Your task to perform on an android device: Show me recent news Image 0: 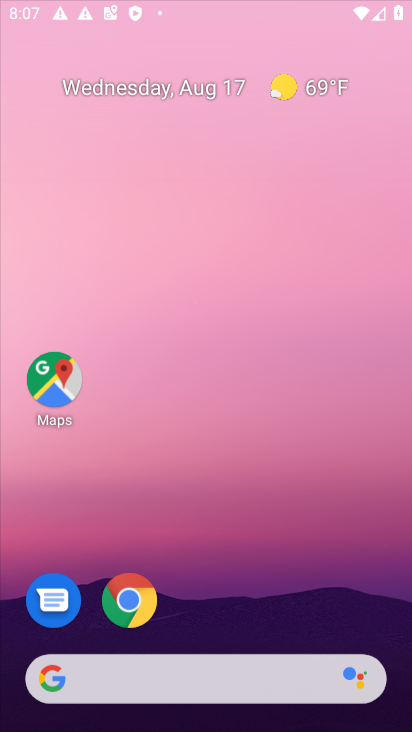
Step 0: press home button
Your task to perform on an android device: Show me recent news Image 1: 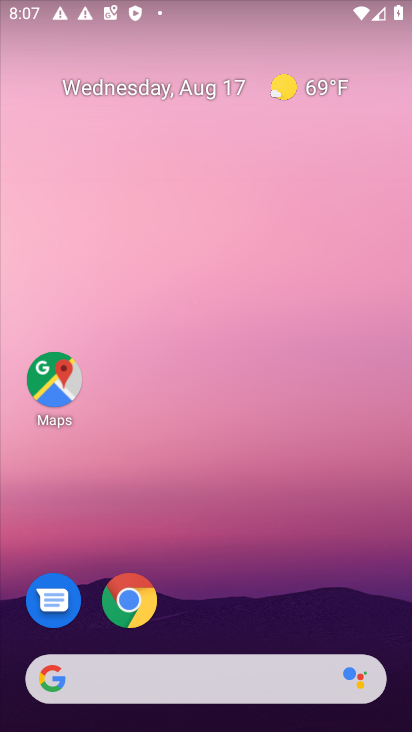
Step 1: click (42, 681)
Your task to perform on an android device: Show me recent news Image 2: 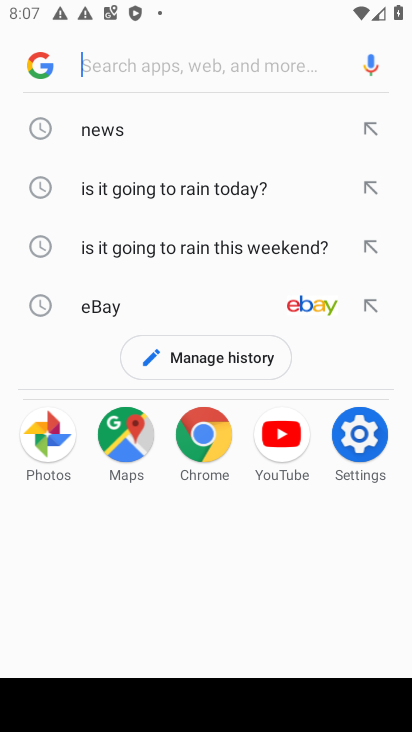
Step 2: type "recent news"
Your task to perform on an android device: Show me recent news Image 3: 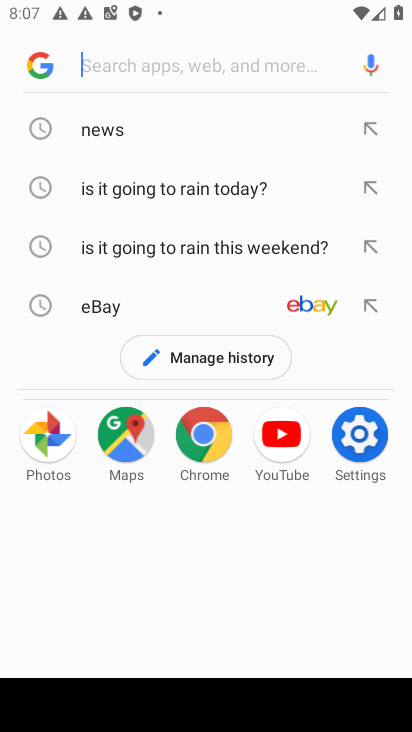
Step 3: click (129, 61)
Your task to perform on an android device: Show me recent news Image 4: 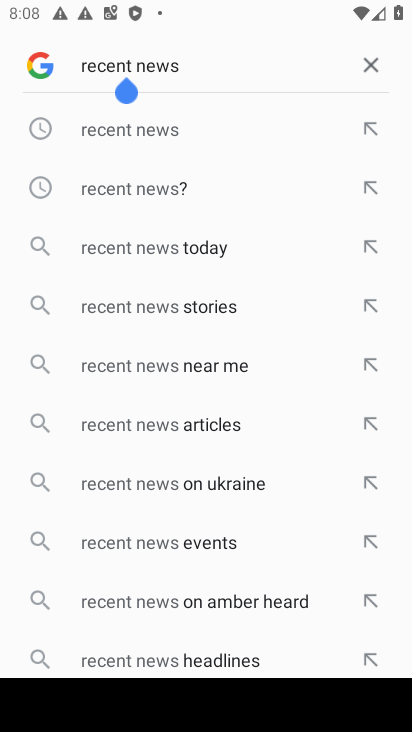
Step 4: press enter
Your task to perform on an android device: Show me recent news Image 5: 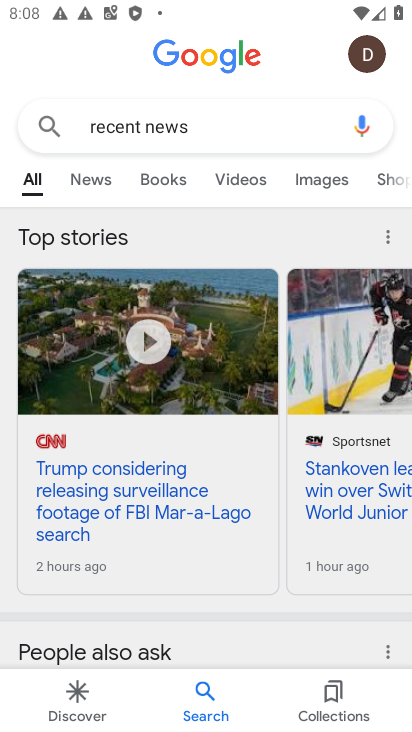
Step 5: task complete